Your task to perform on an android device: check data usage Image 0: 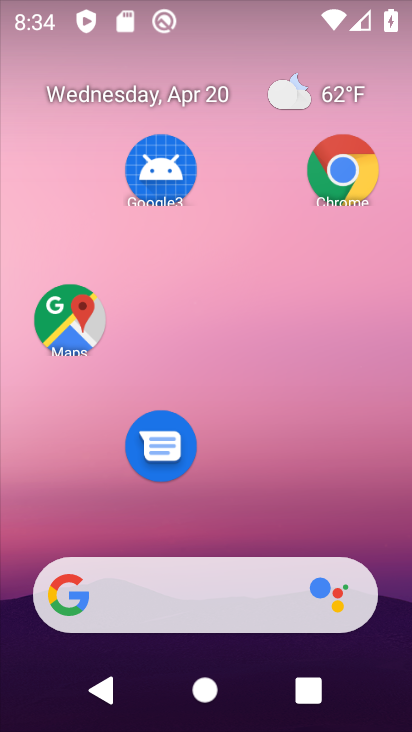
Step 0: drag from (254, 494) to (171, 44)
Your task to perform on an android device: check data usage Image 1: 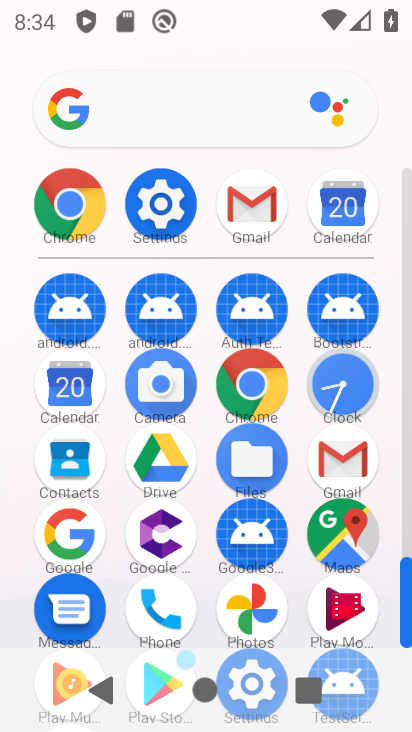
Step 1: click (152, 201)
Your task to perform on an android device: check data usage Image 2: 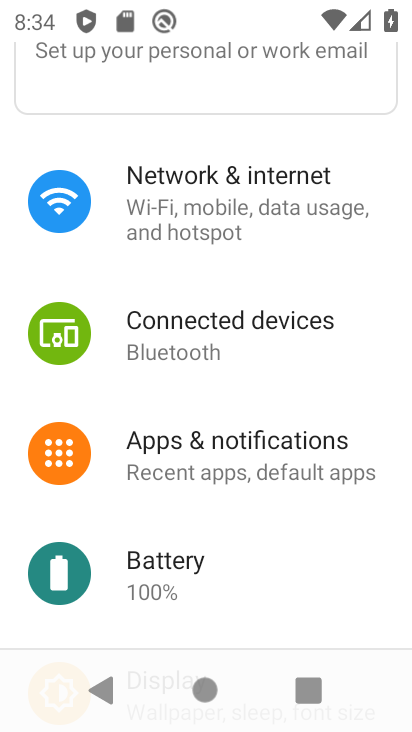
Step 2: click (205, 196)
Your task to perform on an android device: check data usage Image 3: 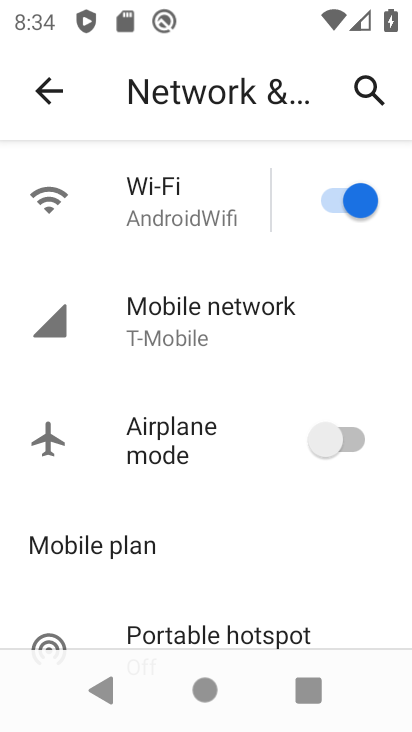
Step 3: click (210, 175)
Your task to perform on an android device: check data usage Image 4: 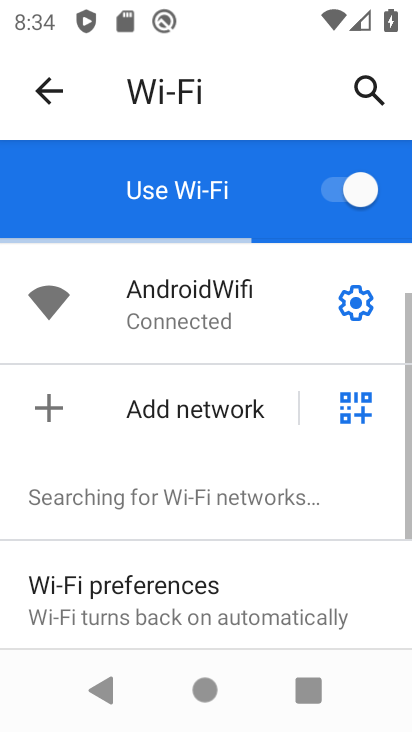
Step 4: click (192, 316)
Your task to perform on an android device: check data usage Image 5: 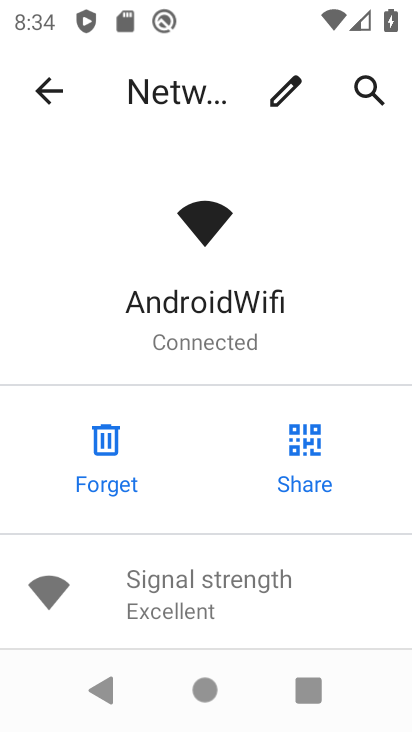
Step 5: task complete